Your task to perform on an android device: Go to Yahoo.com Image 0: 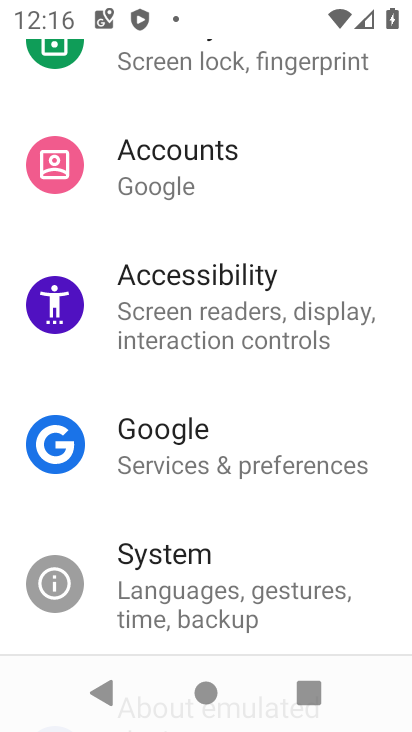
Step 0: press home button
Your task to perform on an android device: Go to Yahoo.com Image 1: 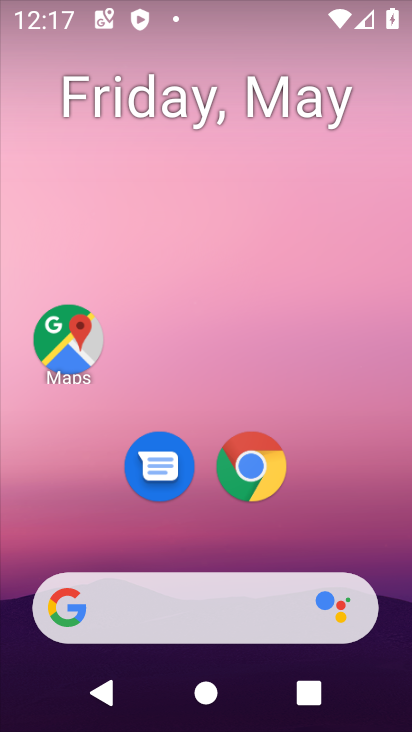
Step 1: click (253, 472)
Your task to perform on an android device: Go to Yahoo.com Image 2: 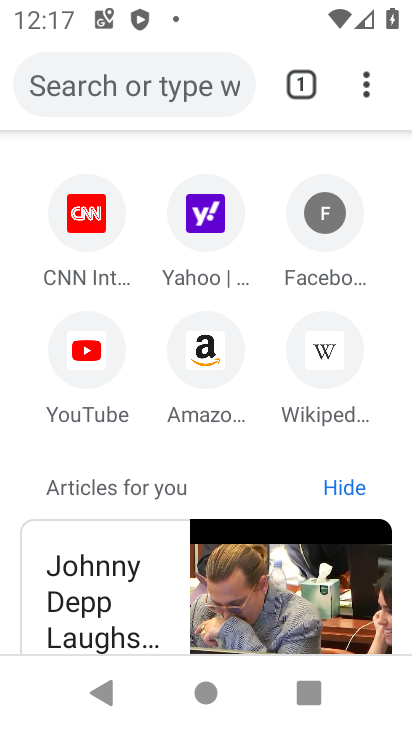
Step 2: click (214, 220)
Your task to perform on an android device: Go to Yahoo.com Image 3: 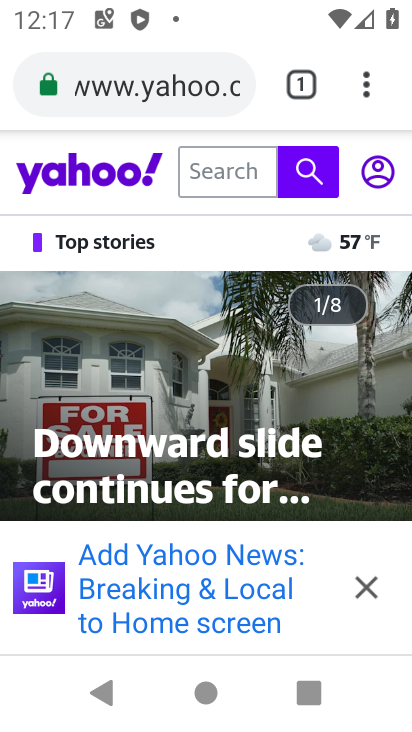
Step 3: task complete